Your task to perform on an android device: change notification settings in the gmail app Image 0: 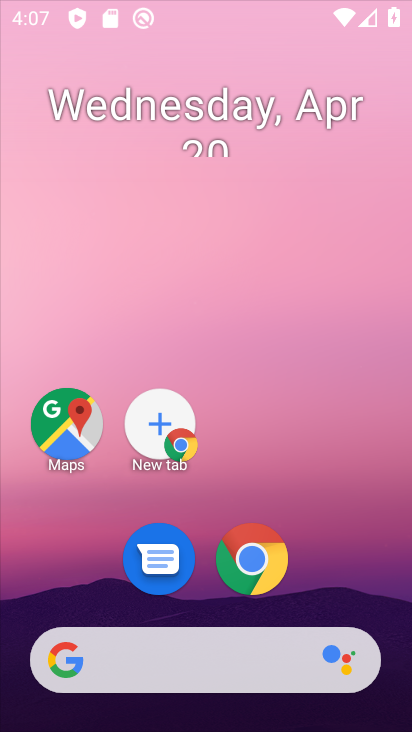
Step 0: click (283, 141)
Your task to perform on an android device: change notification settings in the gmail app Image 1: 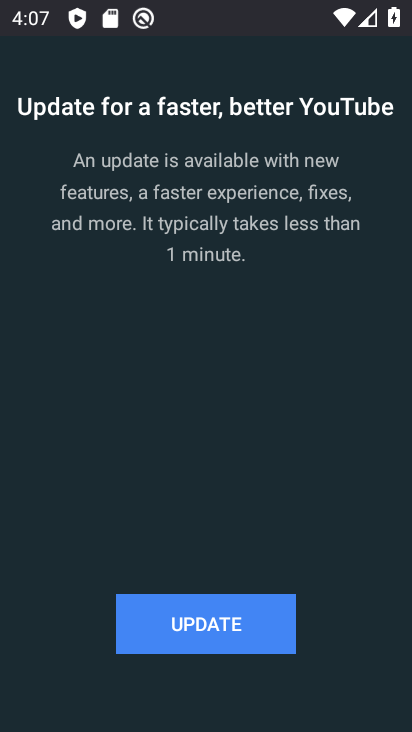
Step 1: click (243, 636)
Your task to perform on an android device: change notification settings in the gmail app Image 2: 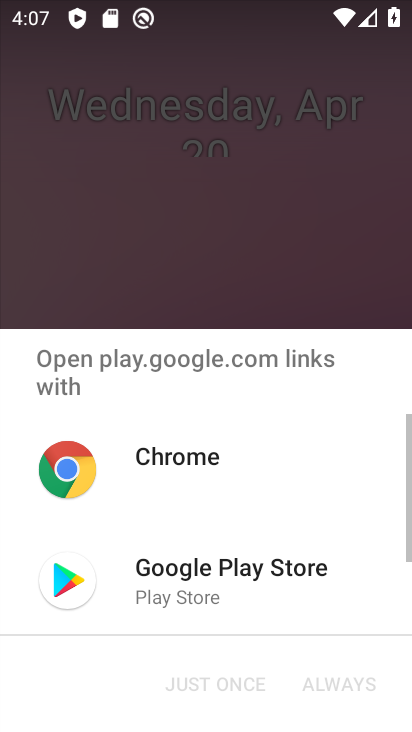
Step 2: click (292, 584)
Your task to perform on an android device: change notification settings in the gmail app Image 3: 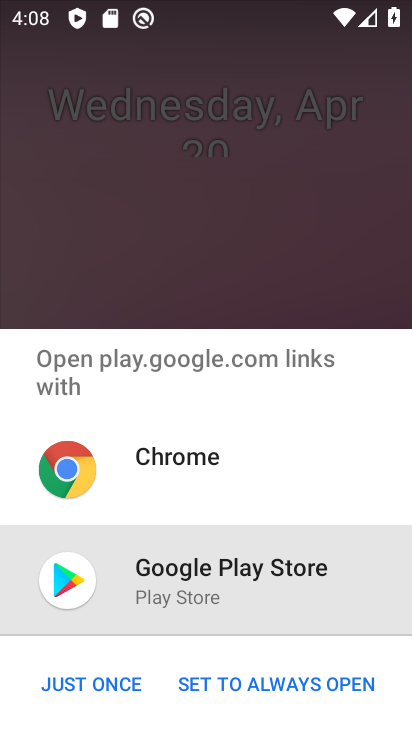
Step 3: click (292, 584)
Your task to perform on an android device: change notification settings in the gmail app Image 4: 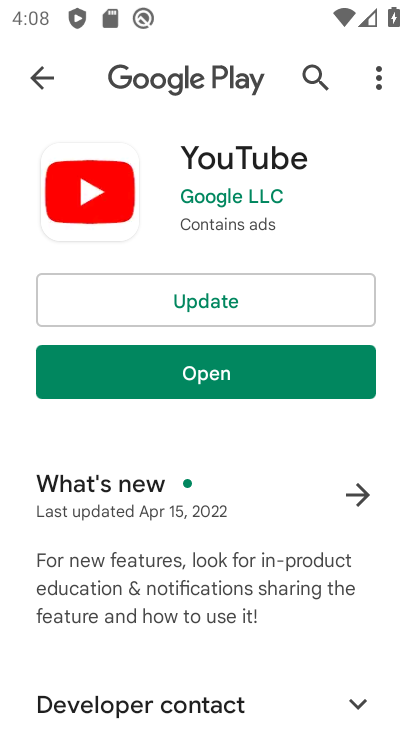
Step 4: press home button
Your task to perform on an android device: change notification settings in the gmail app Image 5: 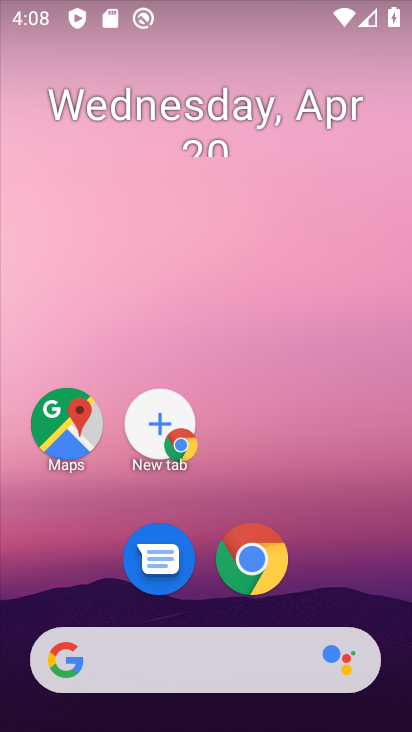
Step 5: drag from (340, 532) to (339, 36)
Your task to perform on an android device: change notification settings in the gmail app Image 6: 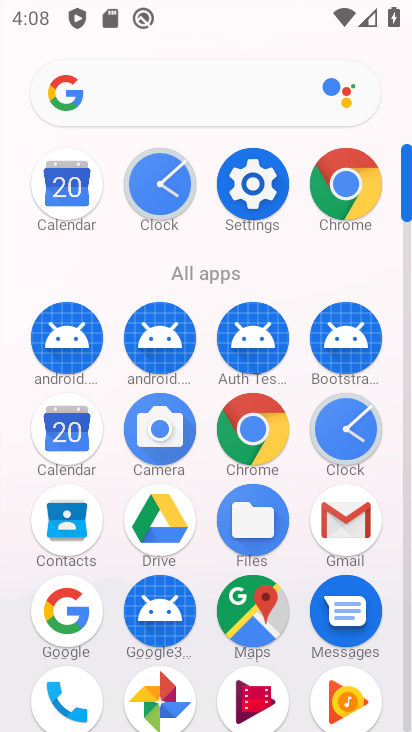
Step 6: click (335, 510)
Your task to perform on an android device: change notification settings in the gmail app Image 7: 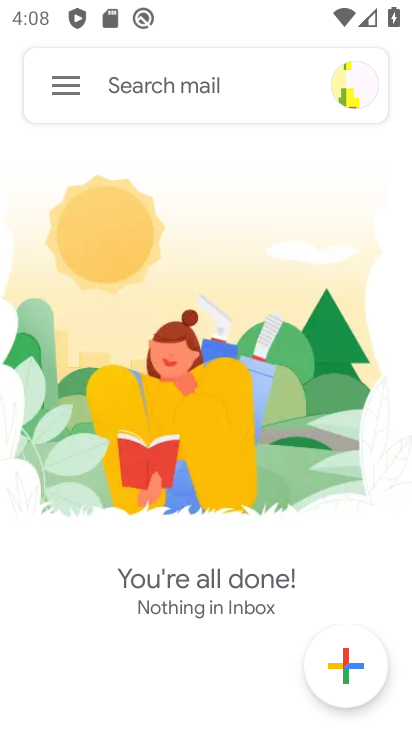
Step 7: click (76, 100)
Your task to perform on an android device: change notification settings in the gmail app Image 8: 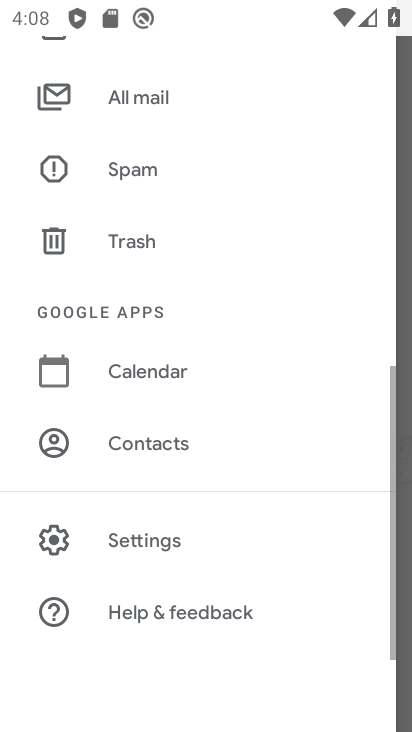
Step 8: click (234, 534)
Your task to perform on an android device: change notification settings in the gmail app Image 9: 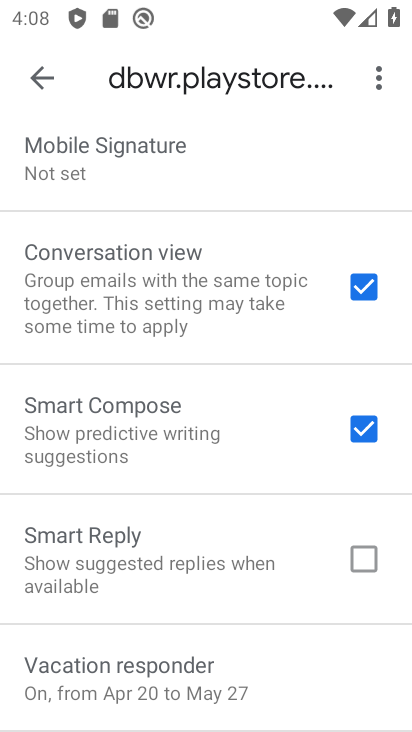
Step 9: click (36, 83)
Your task to perform on an android device: change notification settings in the gmail app Image 10: 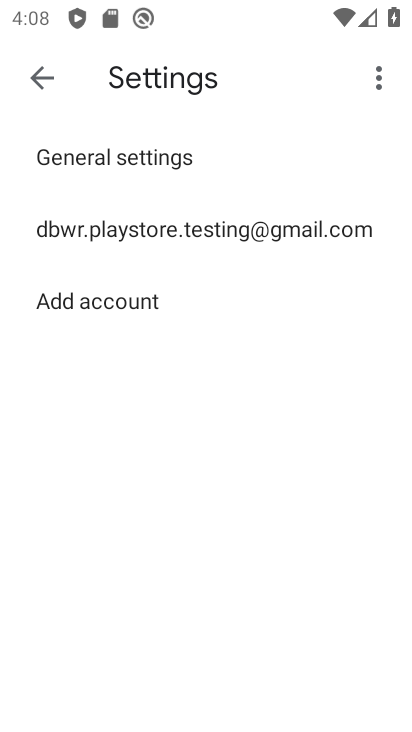
Step 10: click (133, 143)
Your task to perform on an android device: change notification settings in the gmail app Image 11: 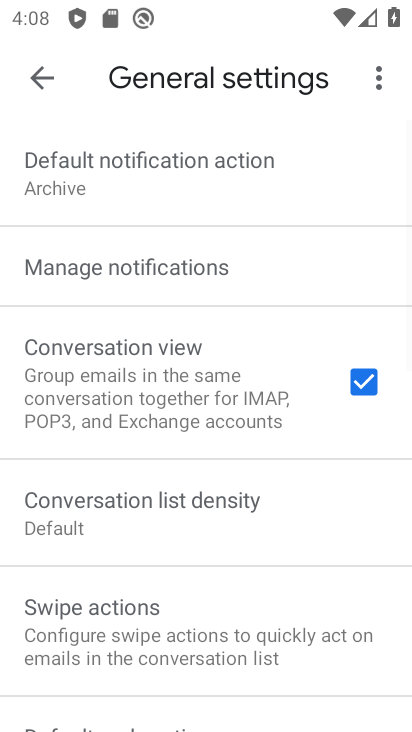
Step 11: click (197, 237)
Your task to perform on an android device: change notification settings in the gmail app Image 12: 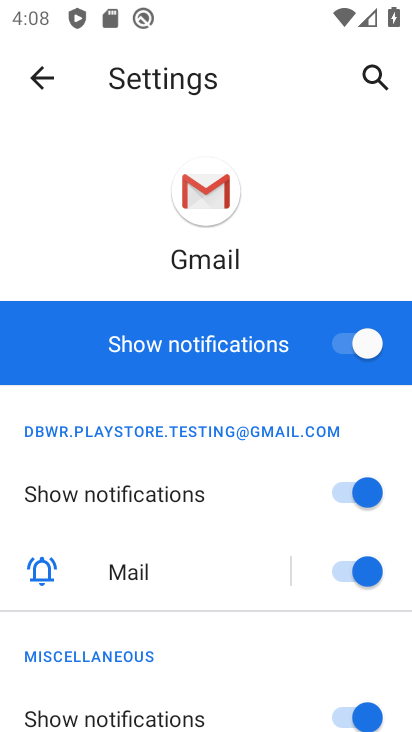
Step 12: task complete